Your task to perform on an android device: turn on sleep mode Image 0: 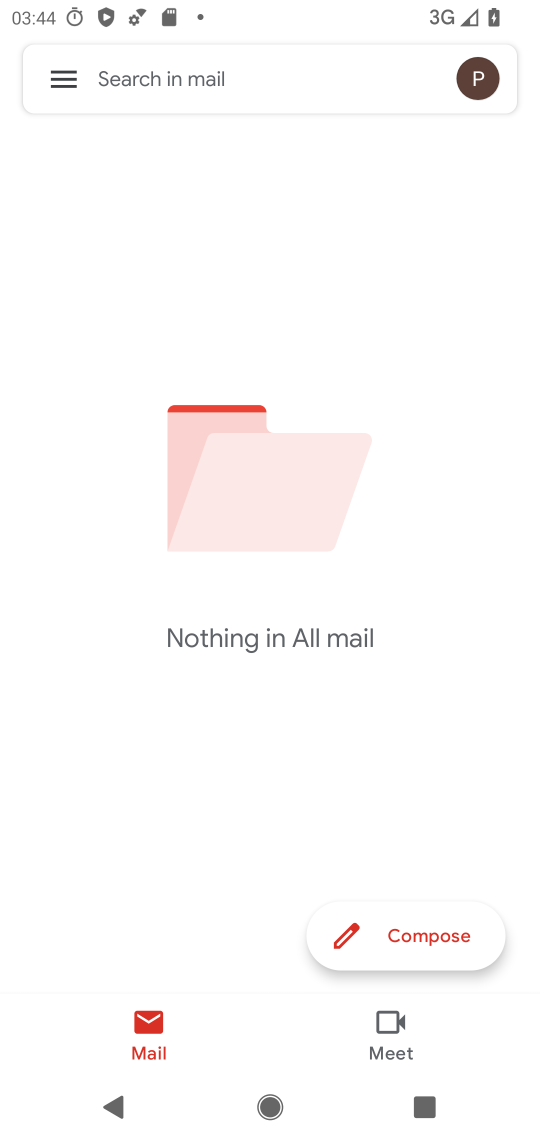
Step 0: press home button
Your task to perform on an android device: turn on sleep mode Image 1: 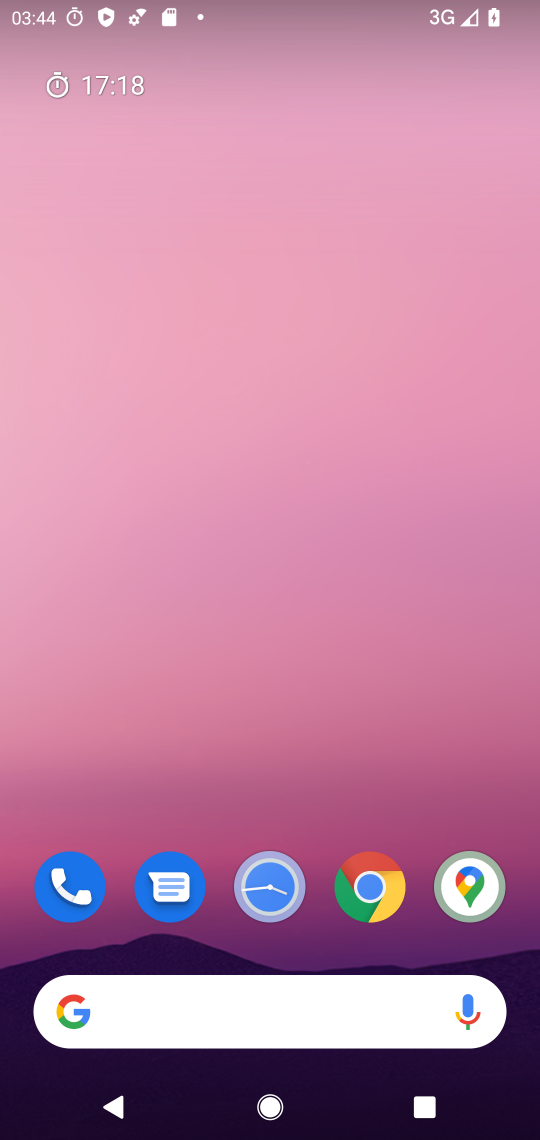
Step 1: drag from (322, 602) to (354, 243)
Your task to perform on an android device: turn on sleep mode Image 2: 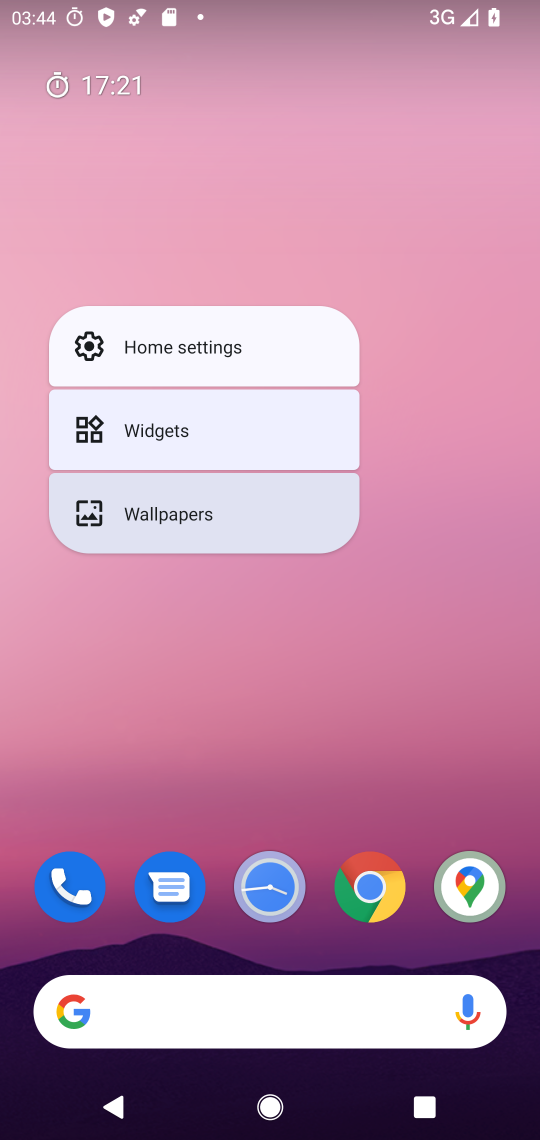
Step 2: click (429, 642)
Your task to perform on an android device: turn on sleep mode Image 3: 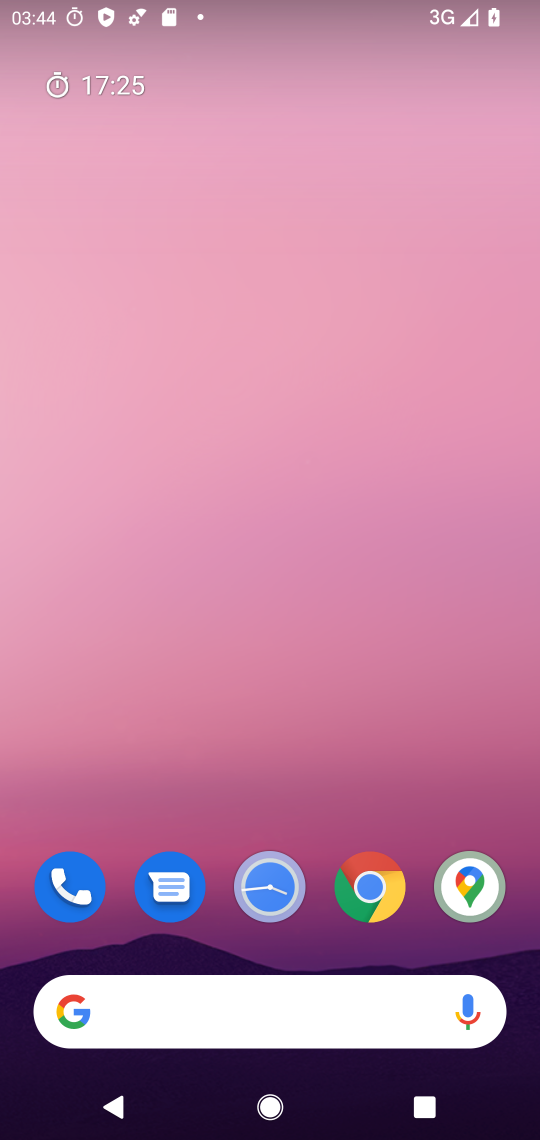
Step 3: drag from (429, 791) to (402, 193)
Your task to perform on an android device: turn on sleep mode Image 4: 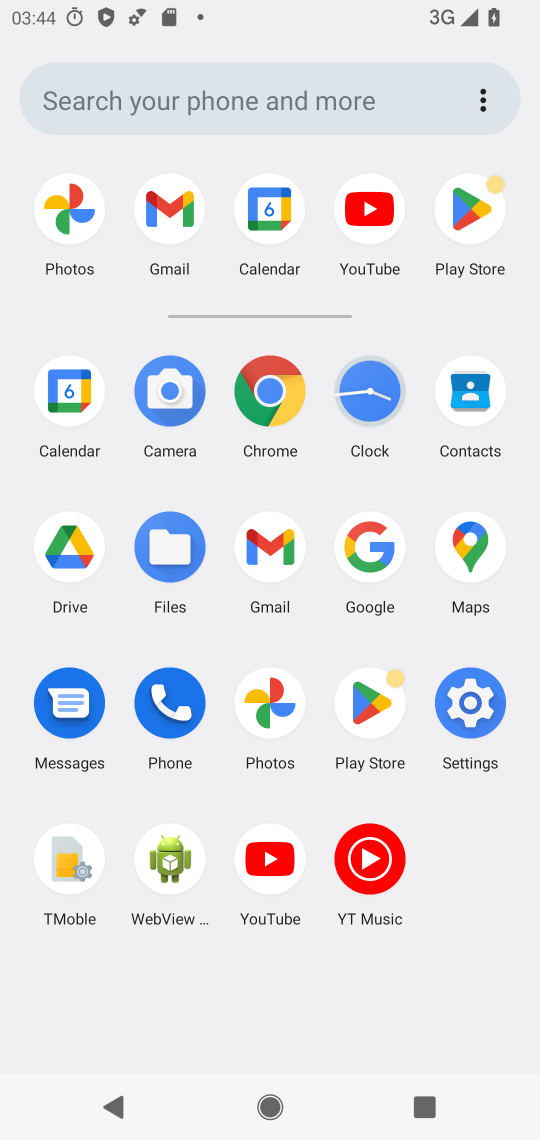
Step 4: click (473, 710)
Your task to perform on an android device: turn on sleep mode Image 5: 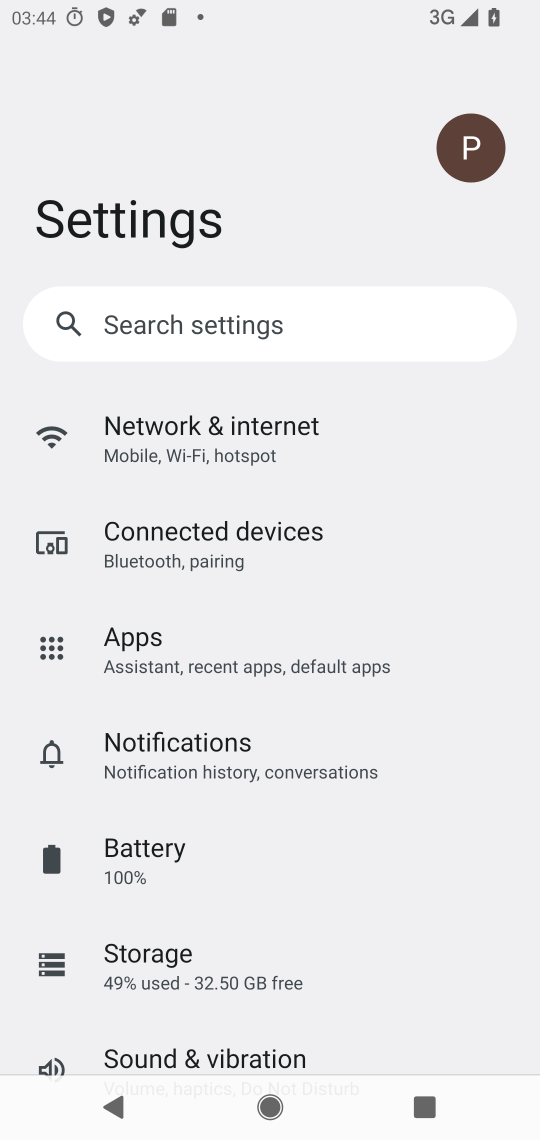
Step 5: drag from (450, 859) to (437, 664)
Your task to perform on an android device: turn on sleep mode Image 6: 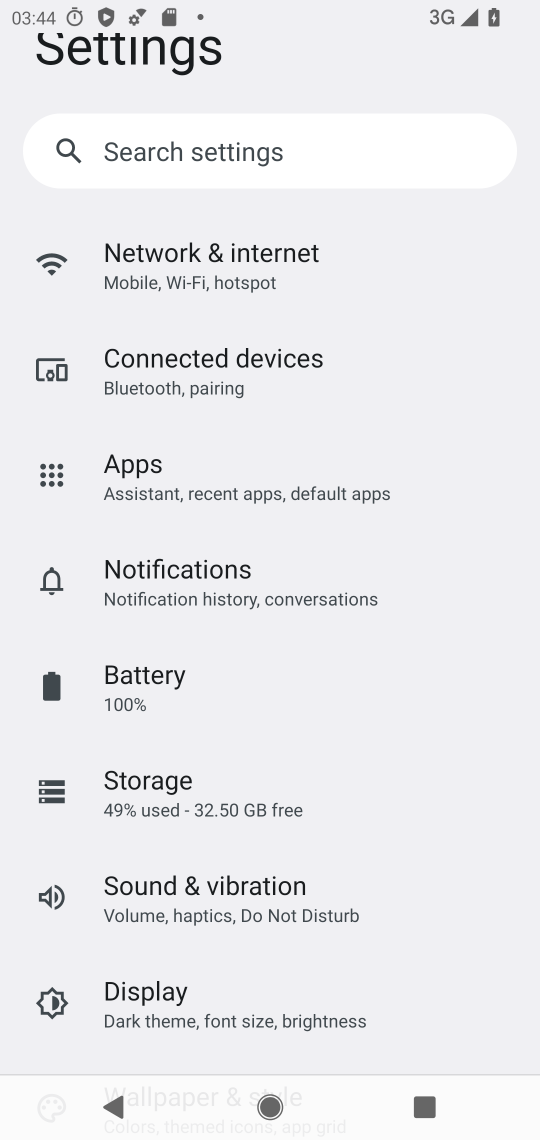
Step 6: drag from (426, 827) to (428, 548)
Your task to perform on an android device: turn on sleep mode Image 7: 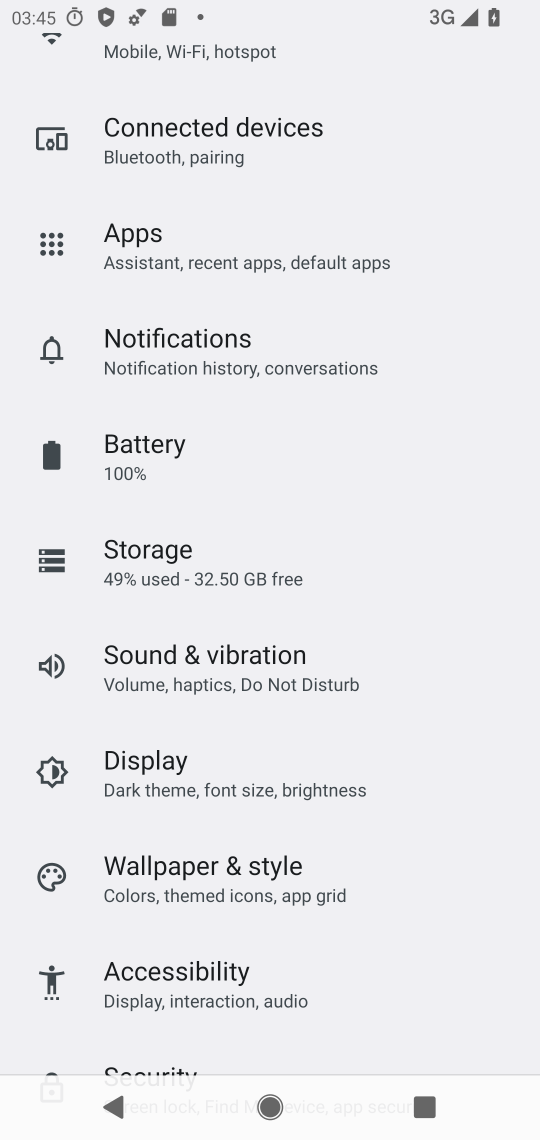
Step 7: drag from (466, 851) to (451, 592)
Your task to perform on an android device: turn on sleep mode Image 8: 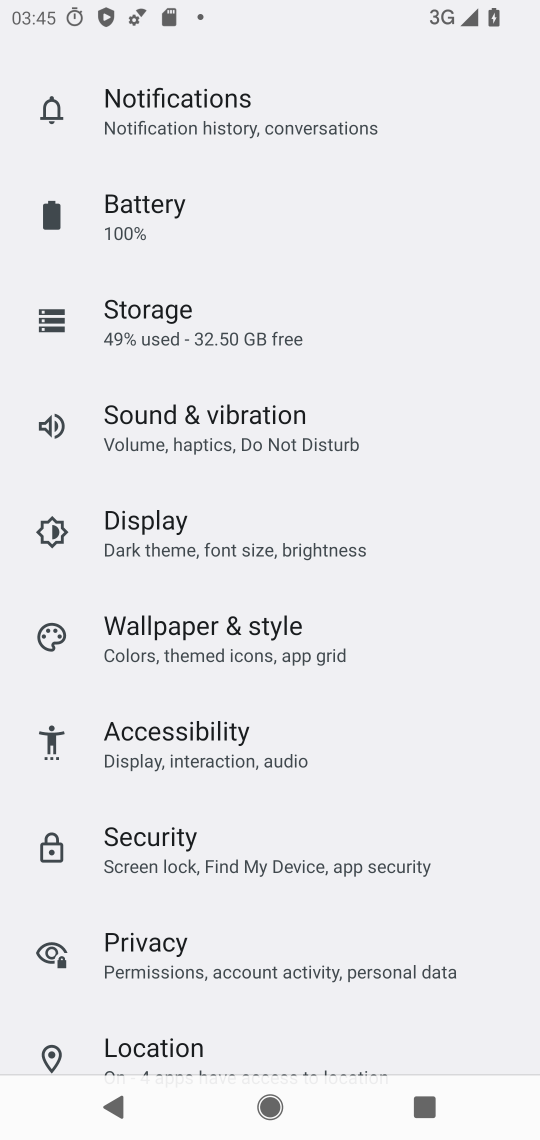
Step 8: drag from (435, 818) to (467, 600)
Your task to perform on an android device: turn on sleep mode Image 9: 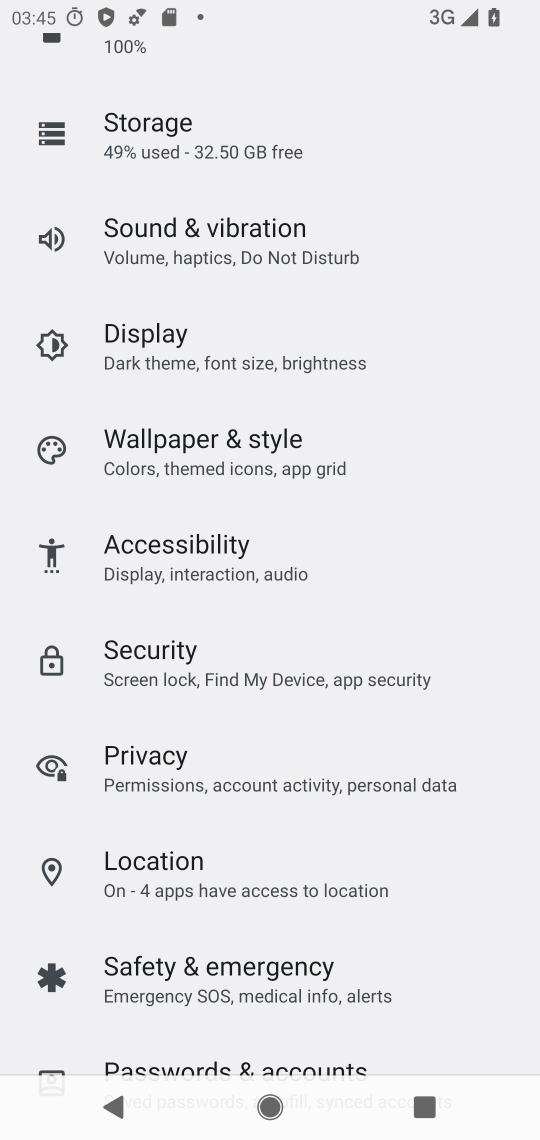
Step 9: drag from (479, 347) to (461, 631)
Your task to perform on an android device: turn on sleep mode Image 10: 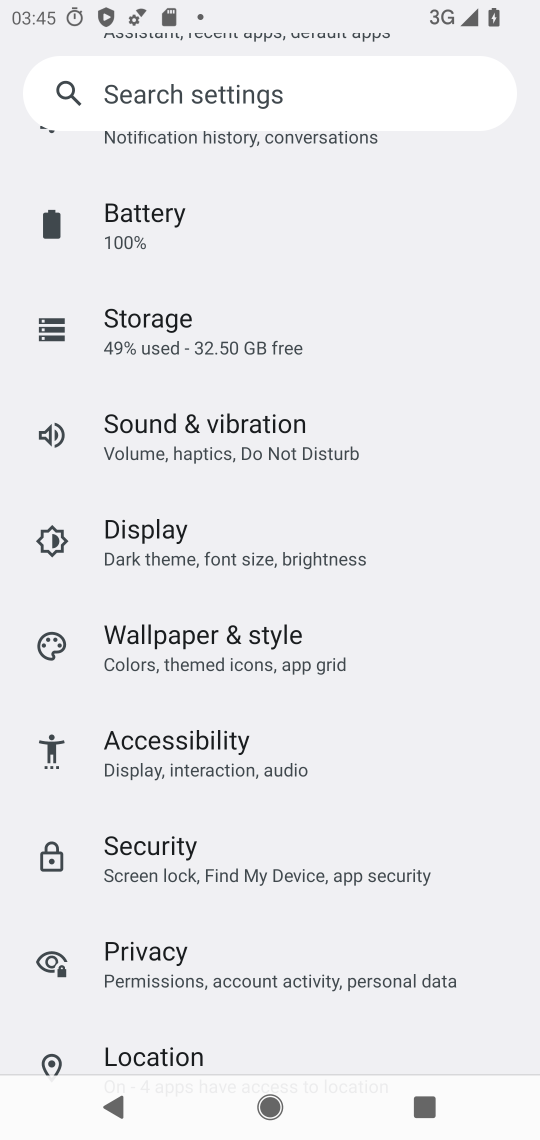
Step 10: drag from (455, 338) to (443, 562)
Your task to perform on an android device: turn on sleep mode Image 11: 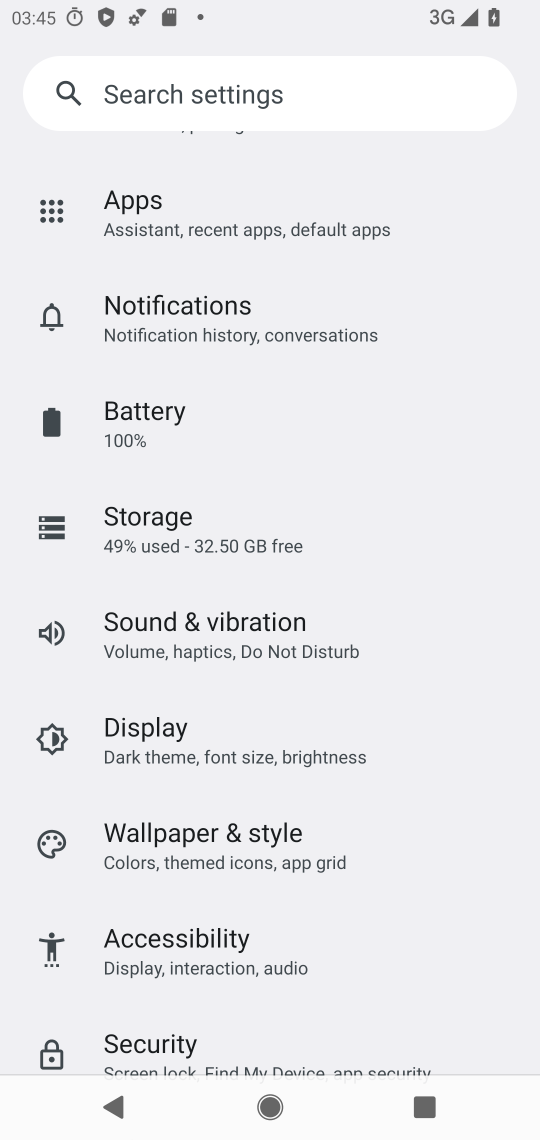
Step 11: drag from (456, 287) to (449, 542)
Your task to perform on an android device: turn on sleep mode Image 12: 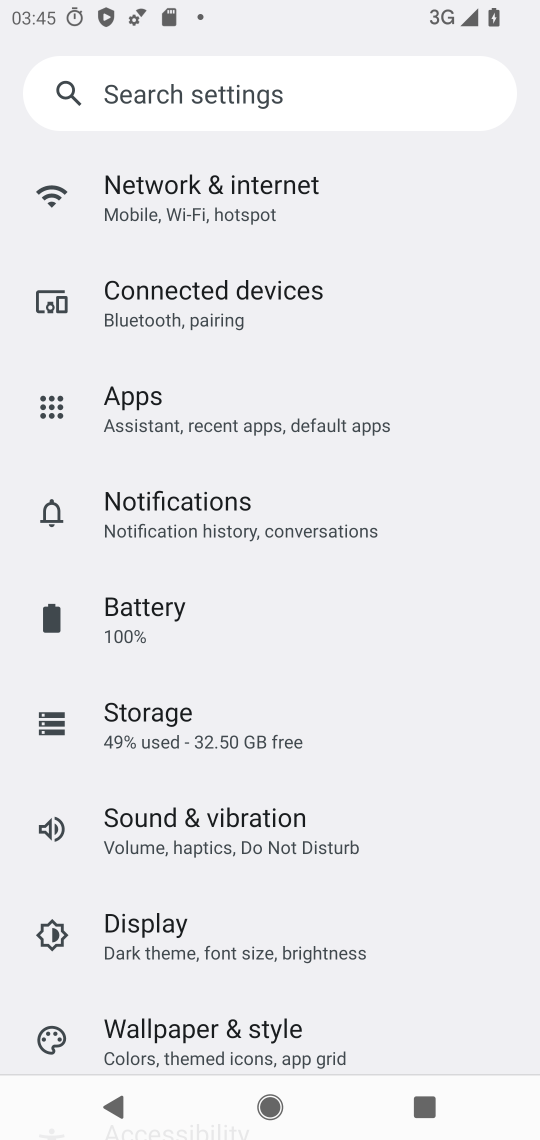
Step 12: drag from (429, 355) to (430, 513)
Your task to perform on an android device: turn on sleep mode Image 13: 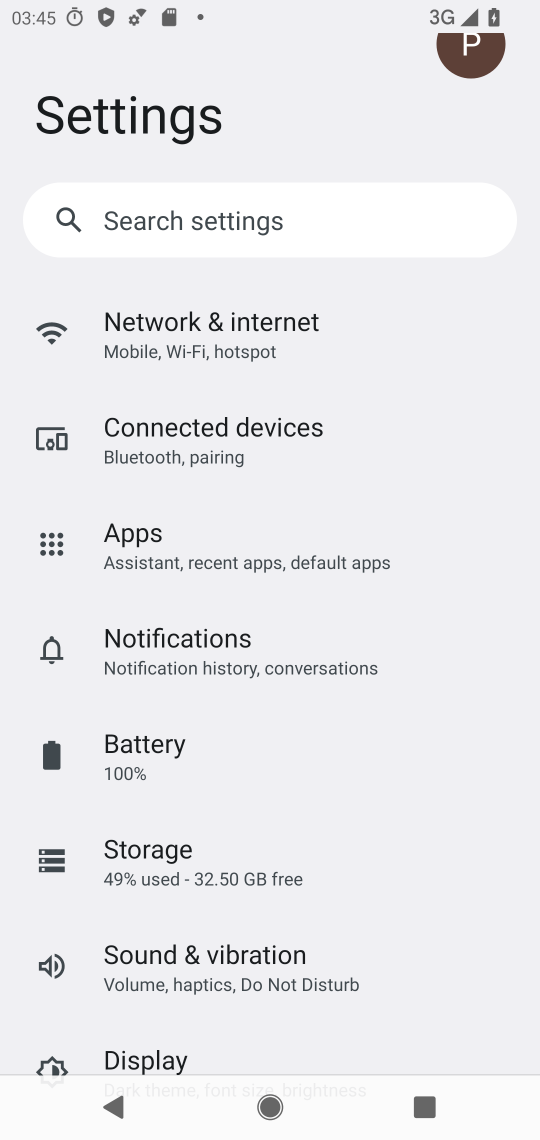
Step 13: drag from (432, 604) to (436, 483)
Your task to perform on an android device: turn on sleep mode Image 14: 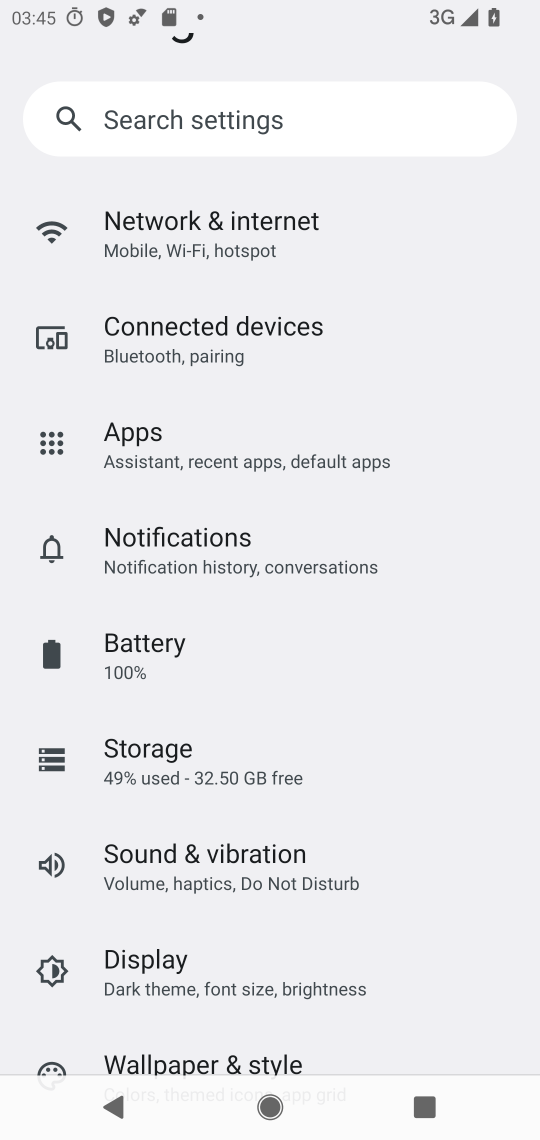
Step 14: drag from (416, 774) to (416, 614)
Your task to perform on an android device: turn on sleep mode Image 15: 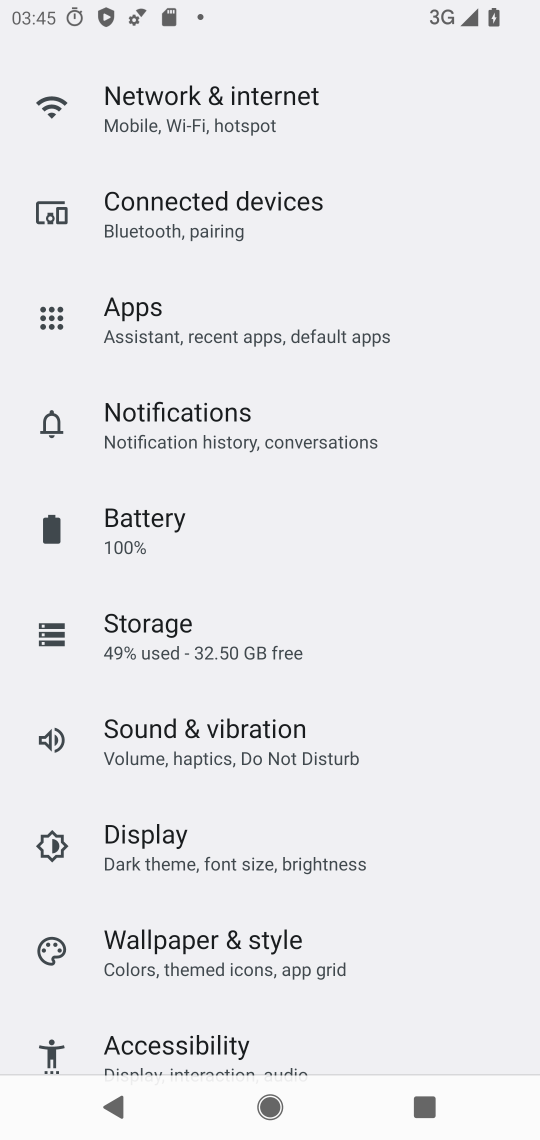
Step 15: drag from (409, 834) to (416, 655)
Your task to perform on an android device: turn on sleep mode Image 16: 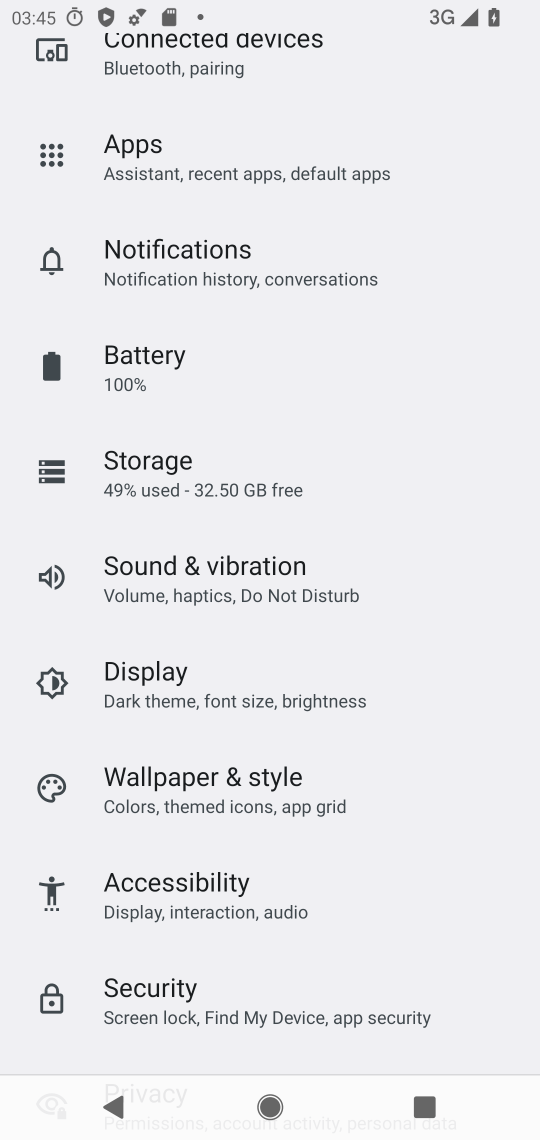
Step 16: drag from (418, 815) to (426, 662)
Your task to perform on an android device: turn on sleep mode Image 17: 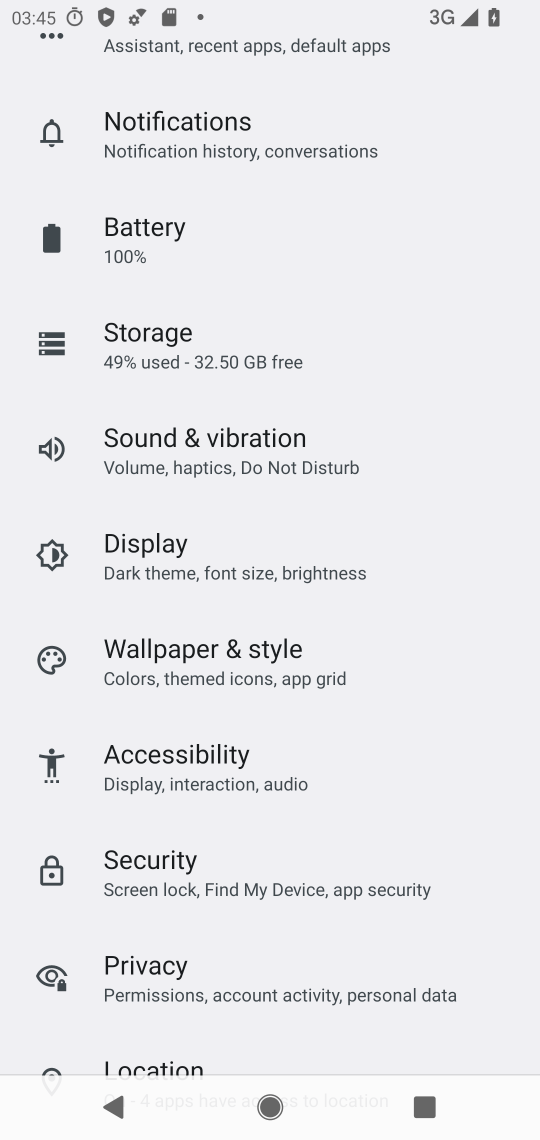
Step 17: click (315, 543)
Your task to perform on an android device: turn on sleep mode Image 18: 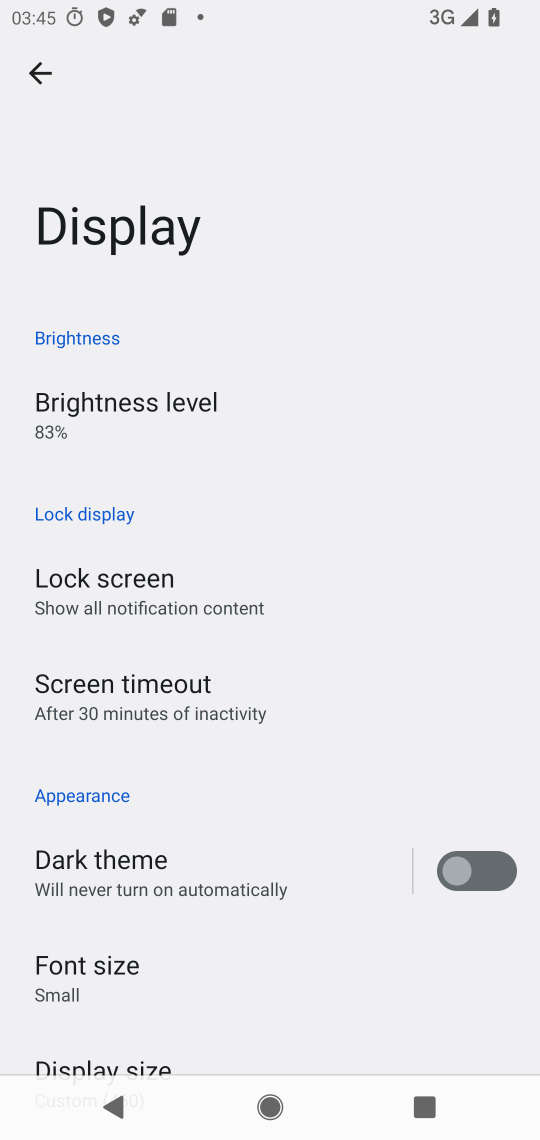
Step 18: task complete